Your task to perform on an android device: turn off sleep mode Image 0: 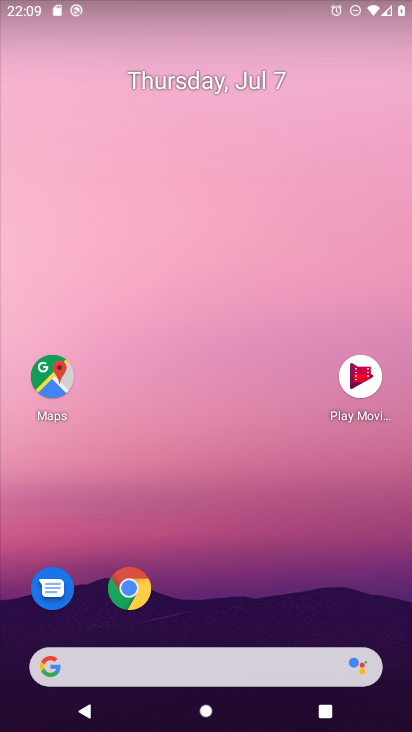
Step 0: drag from (282, 591) to (234, 335)
Your task to perform on an android device: turn off sleep mode Image 1: 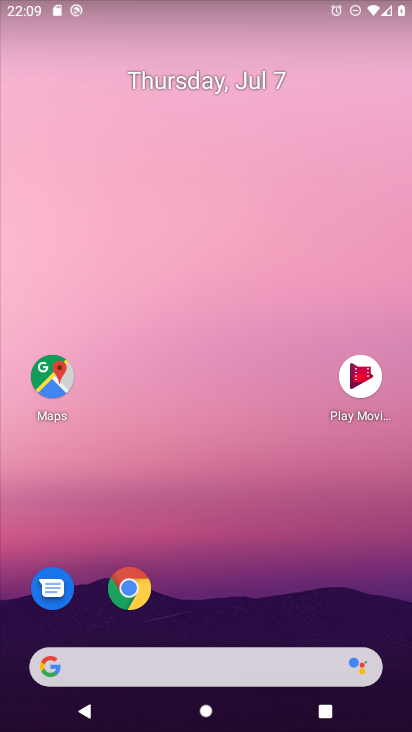
Step 1: drag from (193, 642) to (182, 132)
Your task to perform on an android device: turn off sleep mode Image 2: 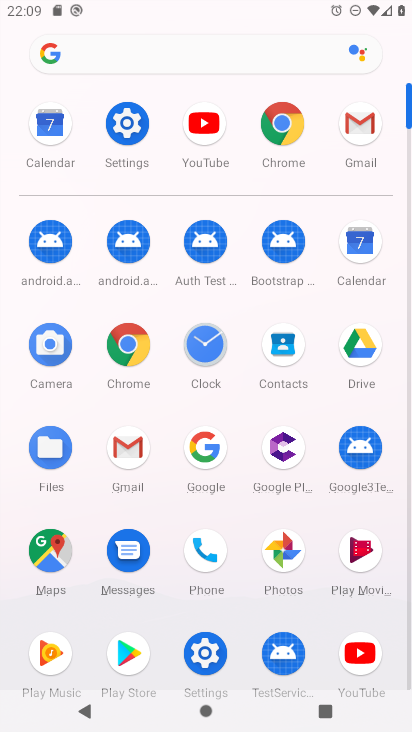
Step 2: click (103, 102)
Your task to perform on an android device: turn off sleep mode Image 3: 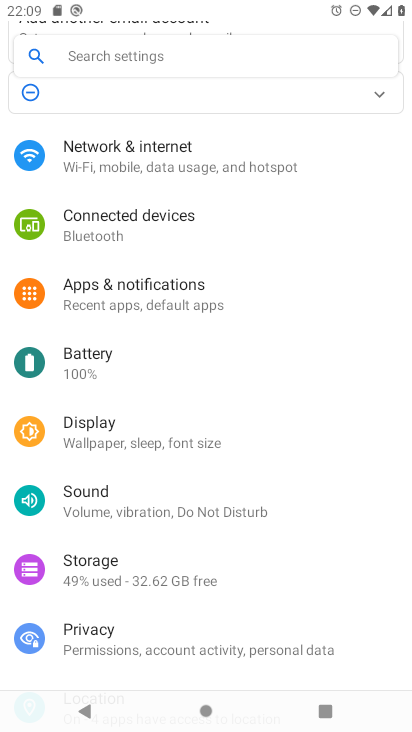
Step 3: task complete